Your task to perform on an android device: turn notification dots on Image 0: 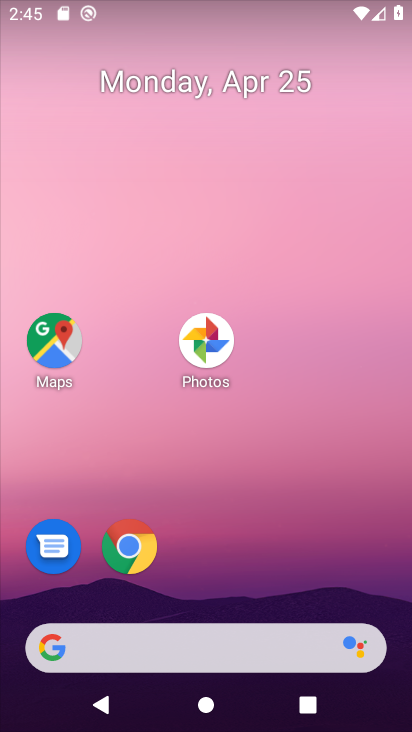
Step 0: drag from (251, 536) to (342, 200)
Your task to perform on an android device: turn notification dots on Image 1: 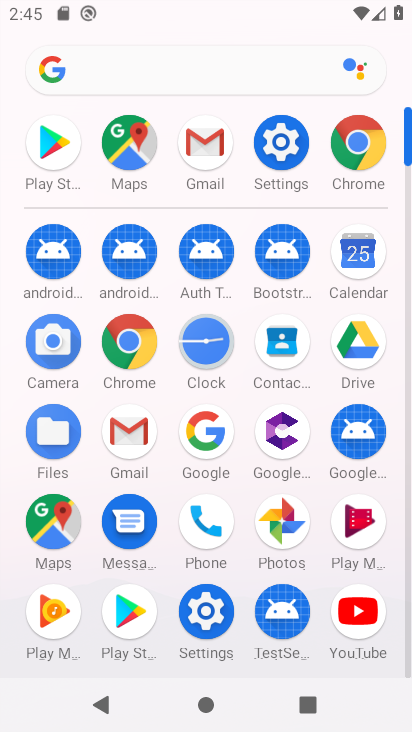
Step 1: click (274, 130)
Your task to perform on an android device: turn notification dots on Image 2: 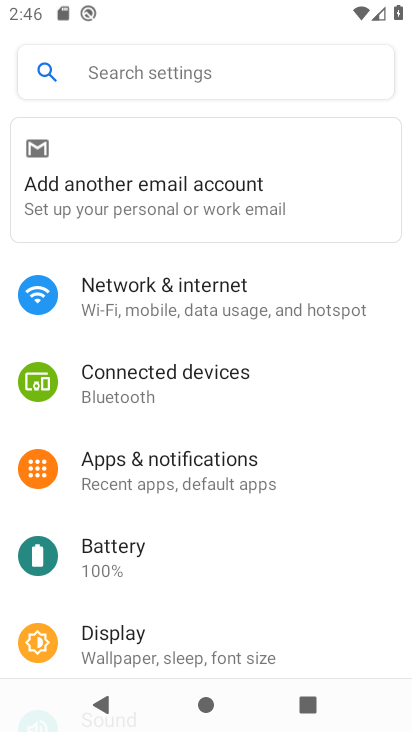
Step 2: click (295, 72)
Your task to perform on an android device: turn notification dots on Image 3: 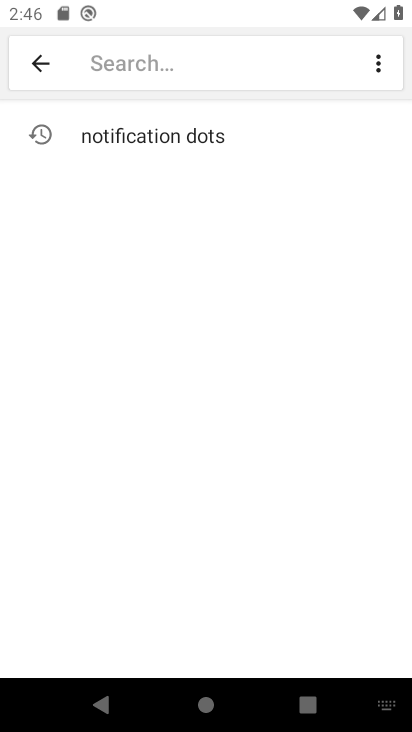
Step 3: type "notification dots "
Your task to perform on an android device: turn notification dots on Image 4: 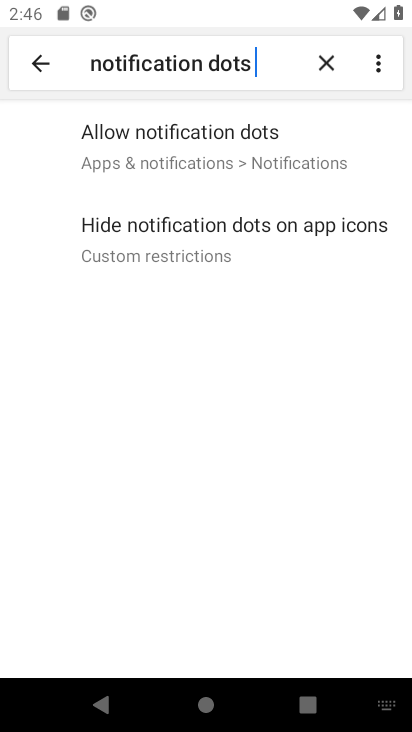
Step 4: click (274, 146)
Your task to perform on an android device: turn notification dots on Image 5: 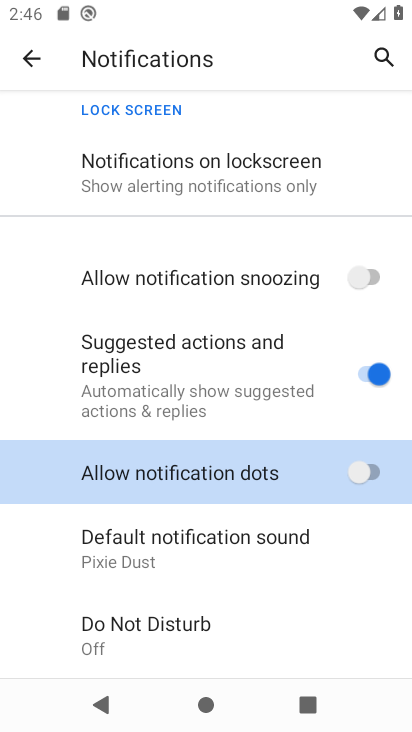
Step 5: click (370, 473)
Your task to perform on an android device: turn notification dots on Image 6: 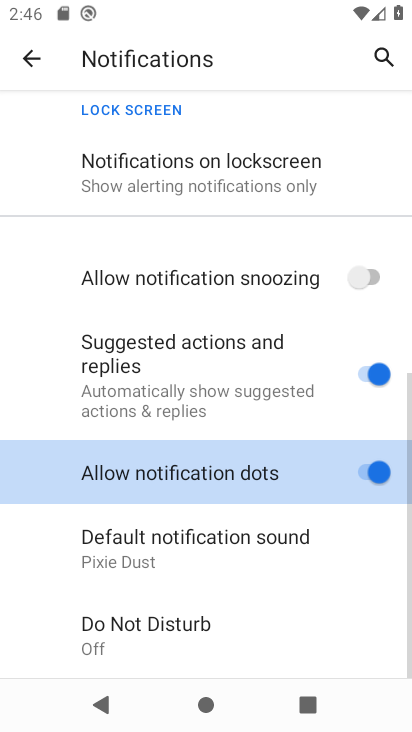
Step 6: task complete